Your task to perform on an android device: allow cookies in the chrome app Image 0: 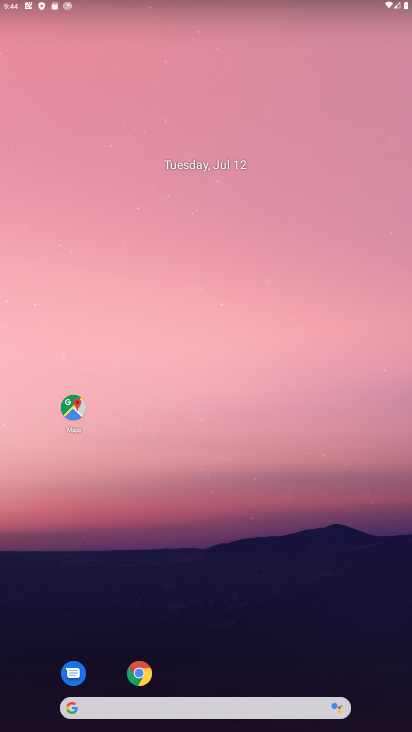
Step 0: press home button
Your task to perform on an android device: allow cookies in the chrome app Image 1: 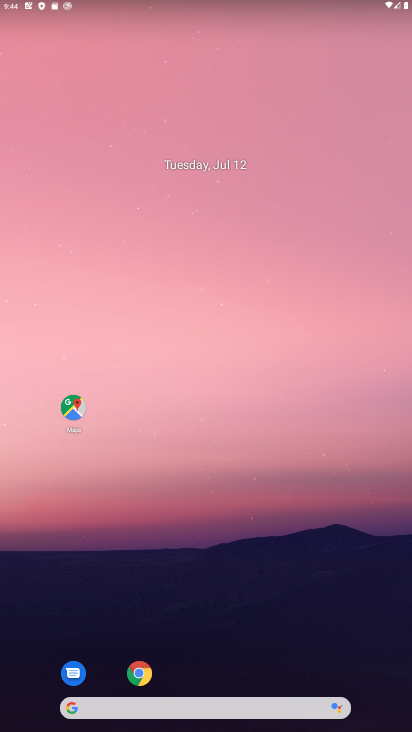
Step 1: click (137, 669)
Your task to perform on an android device: allow cookies in the chrome app Image 2: 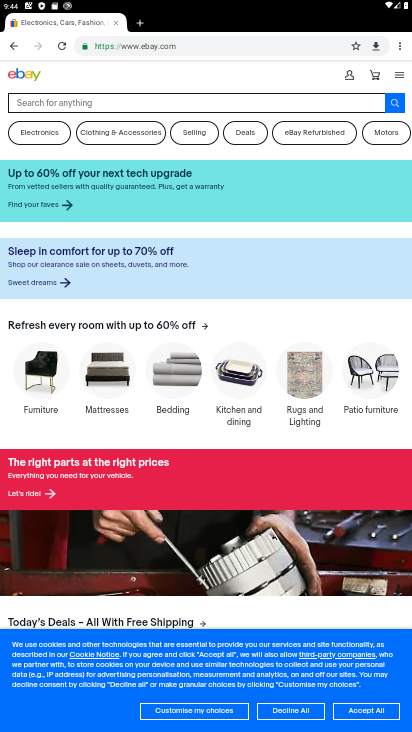
Step 2: click (396, 50)
Your task to perform on an android device: allow cookies in the chrome app Image 3: 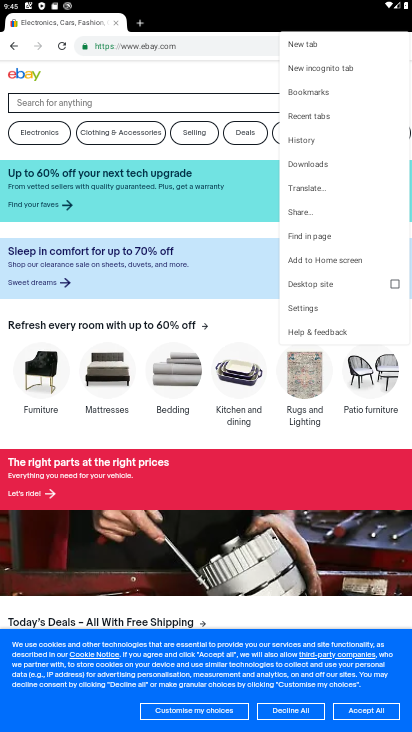
Step 3: click (303, 310)
Your task to perform on an android device: allow cookies in the chrome app Image 4: 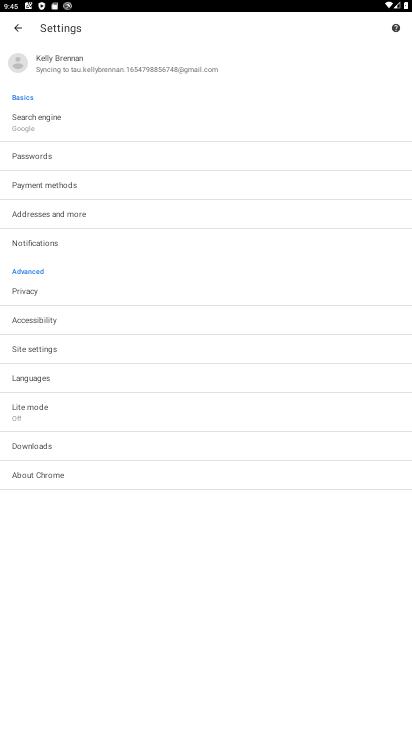
Step 4: click (34, 351)
Your task to perform on an android device: allow cookies in the chrome app Image 5: 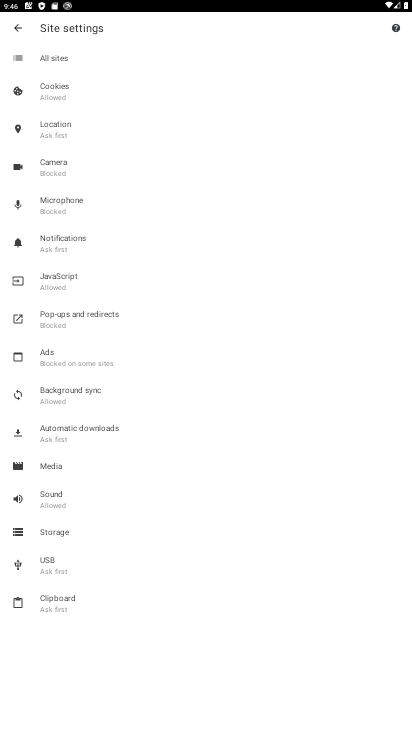
Step 5: click (62, 85)
Your task to perform on an android device: allow cookies in the chrome app Image 6: 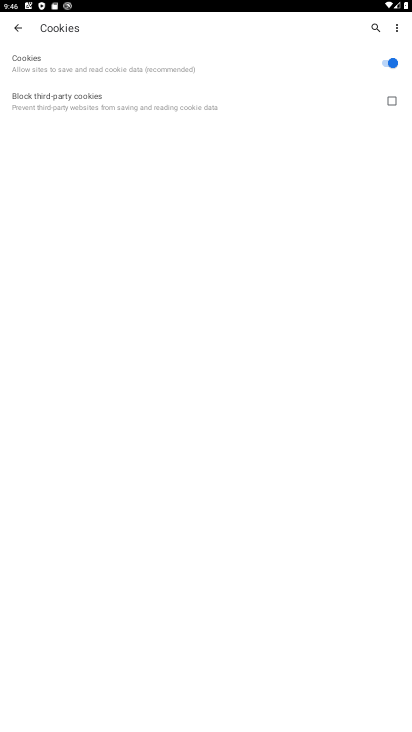
Step 6: task complete